Your task to perform on an android device: delete the emails in spam in the gmail app Image 0: 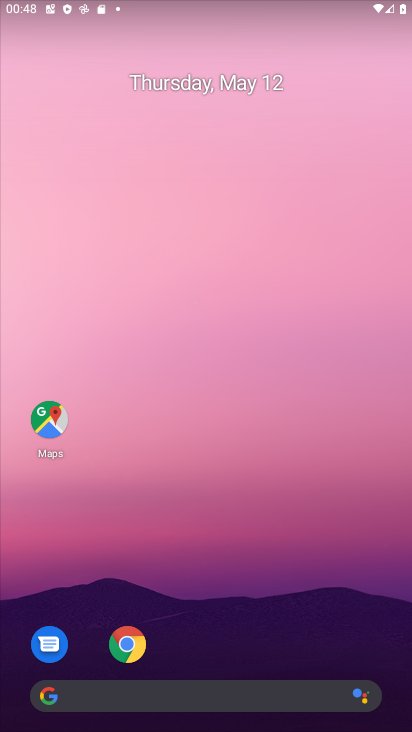
Step 0: drag from (234, 617) to (283, 114)
Your task to perform on an android device: delete the emails in spam in the gmail app Image 1: 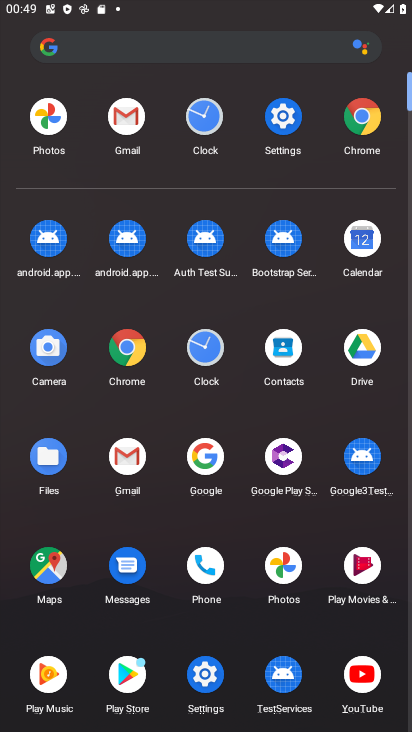
Step 1: click (131, 478)
Your task to perform on an android device: delete the emails in spam in the gmail app Image 2: 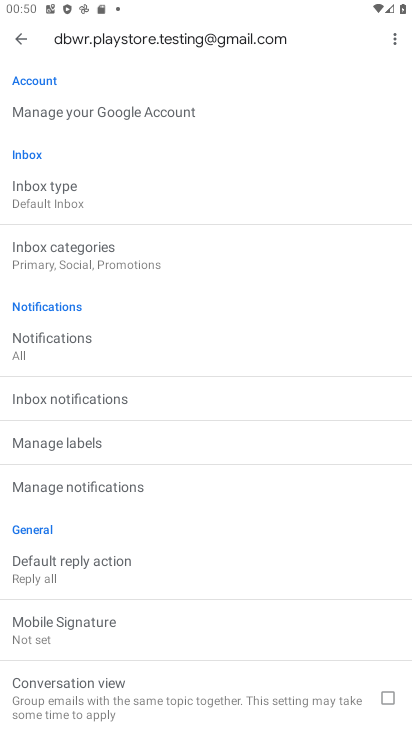
Step 2: press back button
Your task to perform on an android device: delete the emails in spam in the gmail app Image 3: 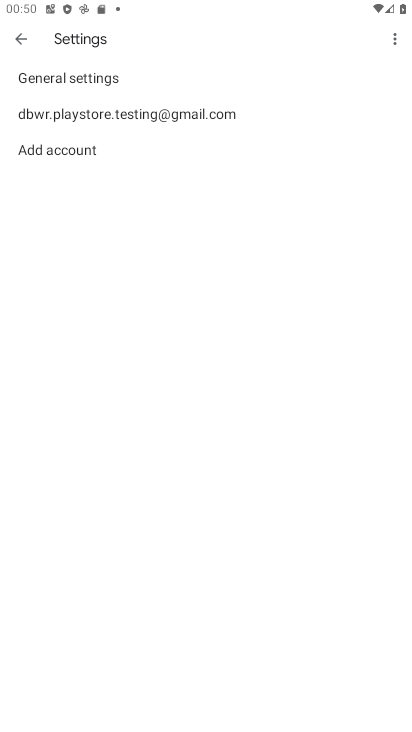
Step 3: press back button
Your task to perform on an android device: delete the emails in spam in the gmail app Image 4: 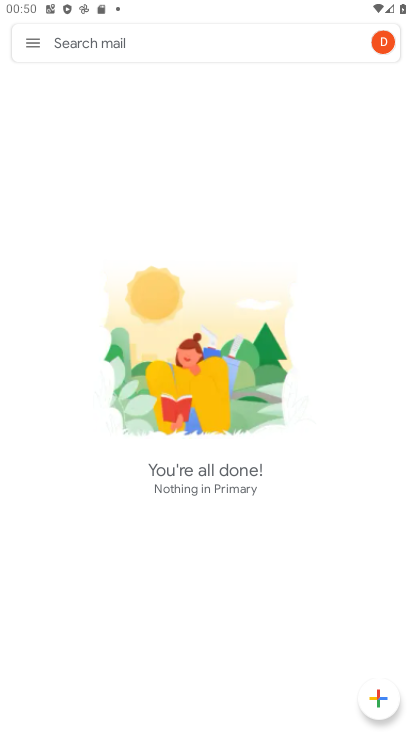
Step 4: click (33, 45)
Your task to perform on an android device: delete the emails in spam in the gmail app Image 5: 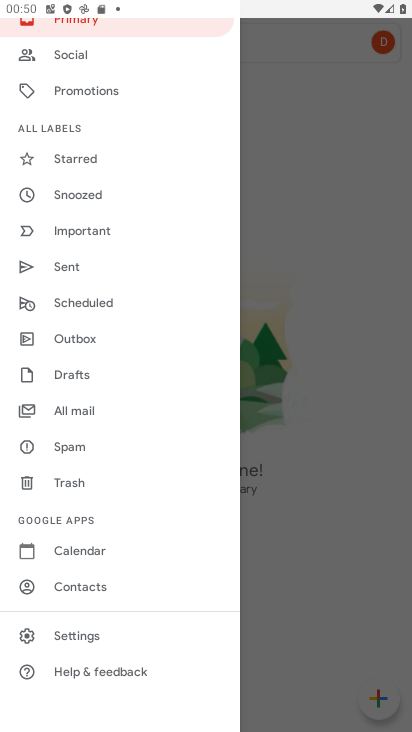
Step 5: click (106, 413)
Your task to perform on an android device: delete the emails in spam in the gmail app Image 6: 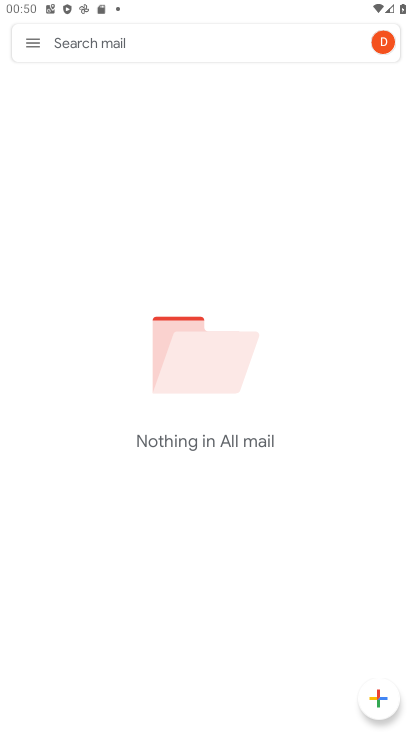
Step 6: task complete